Your task to perform on an android device: Open calendar and show me the third week of next month Image 0: 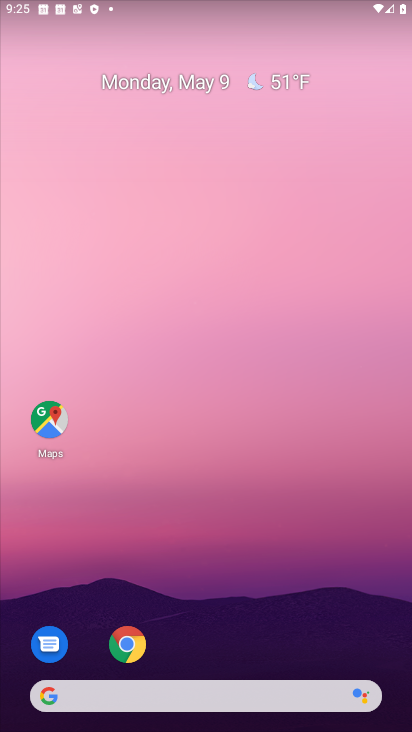
Step 0: drag from (233, 685) to (12, 140)
Your task to perform on an android device: Open calendar and show me the third week of next month Image 1: 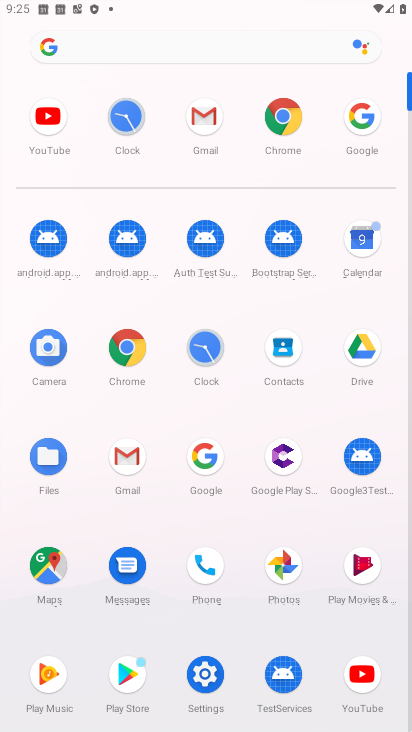
Step 1: click (369, 244)
Your task to perform on an android device: Open calendar and show me the third week of next month Image 2: 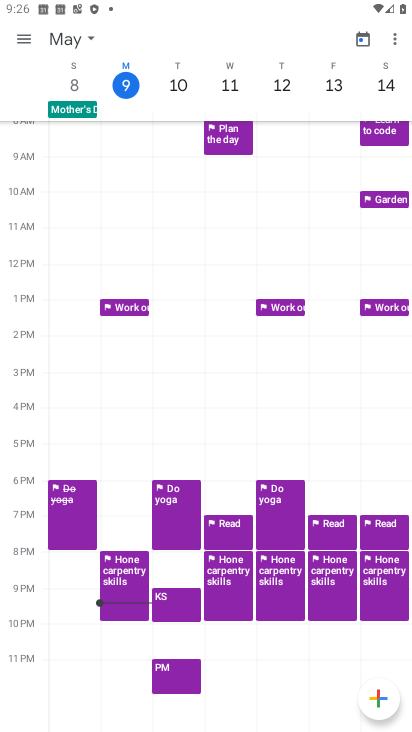
Step 2: task complete